Your task to perform on an android device: choose inbox layout in the gmail app Image 0: 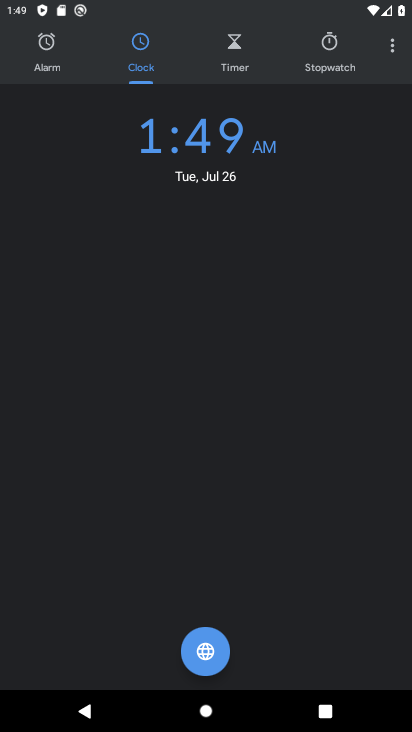
Step 0: press home button
Your task to perform on an android device: choose inbox layout in the gmail app Image 1: 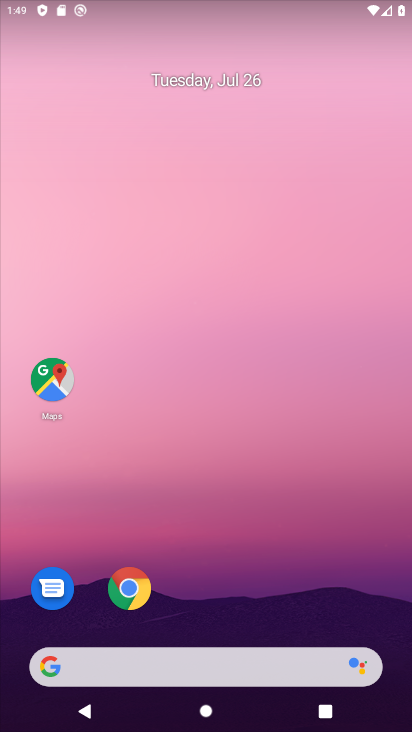
Step 1: drag from (242, 616) to (175, 32)
Your task to perform on an android device: choose inbox layout in the gmail app Image 2: 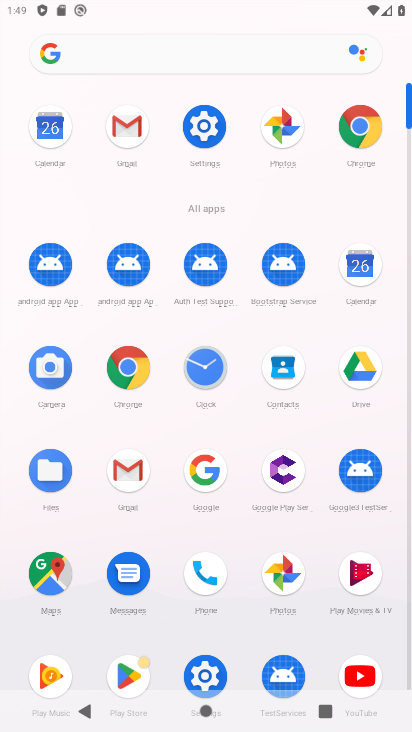
Step 2: click (133, 133)
Your task to perform on an android device: choose inbox layout in the gmail app Image 3: 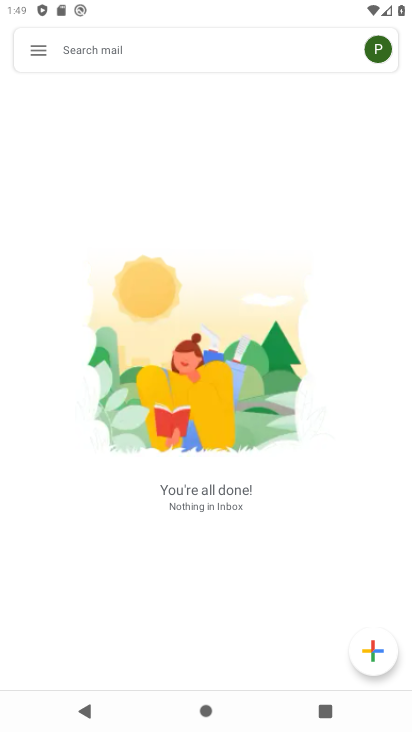
Step 3: click (42, 46)
Your task to perform on an android device: choose inbox layout in the gmail app Image 4: 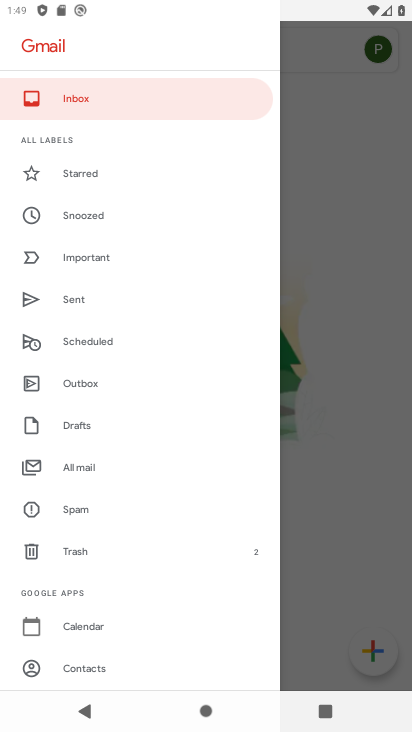
Step 4: drag from (137, 645) to (102, 302)
Your task to perform on an android device: choose inbox layout in the gmail app Image 5: 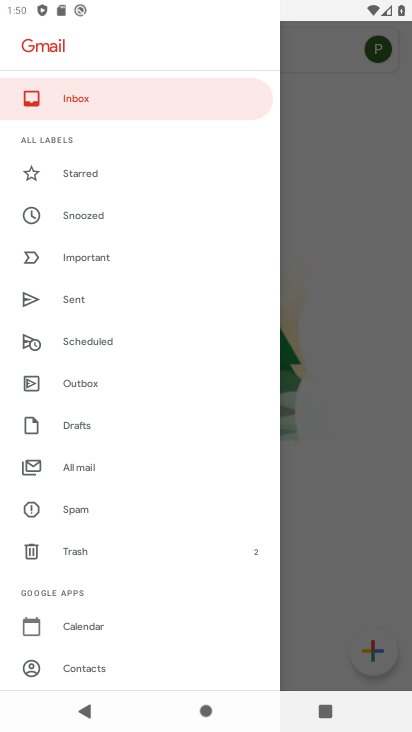
Step 5: drag from (102, 648) to (79, 321)
Your task to perform on an android device: choose inbox layout in the gmail app Image 6: 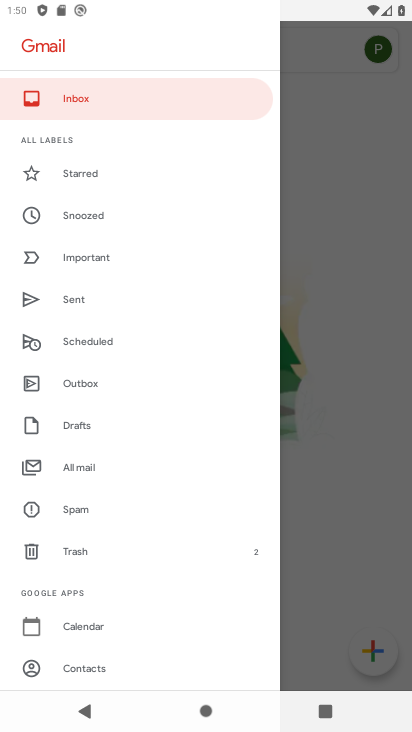
Step 6: drag from (75, 593) to (72, 149)
Your task to perform on an android device: choose inbox layout in the gmail app Image 7: 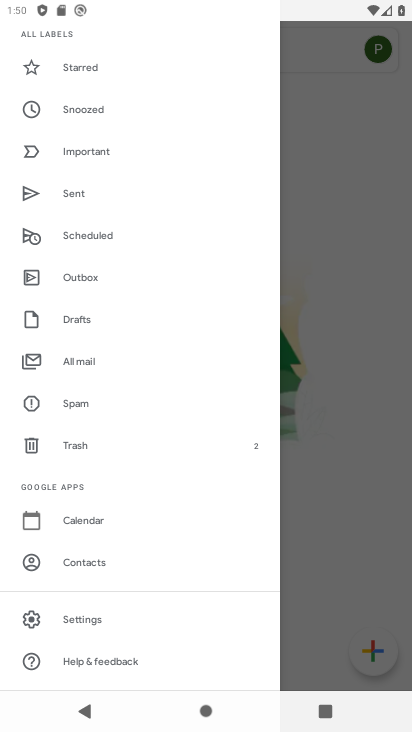
Step 7: click (87, 607)
Your task to perform on an android device: choose inbox layout in the gmail app Image 8: 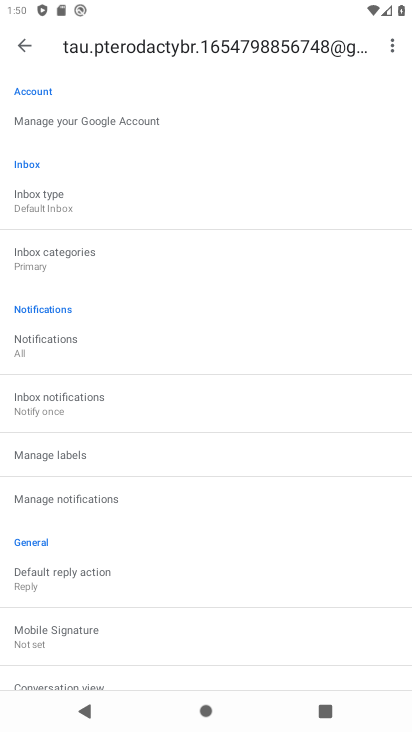
Step 8: click (53, 207)
Your task to perform on an android device: choose inbox layout in the gmail app Image 9: 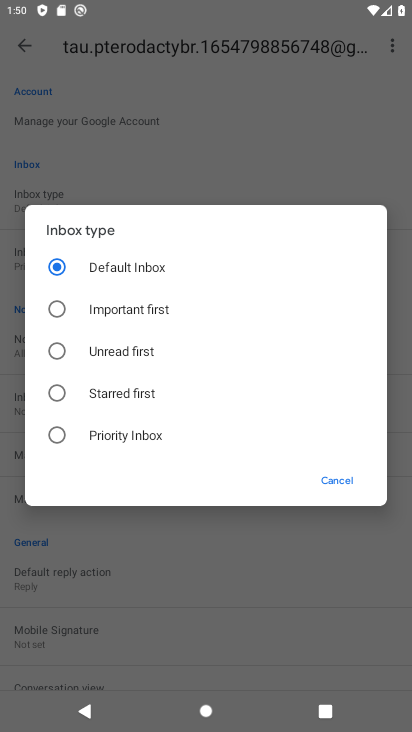
Step 9: click (126, 312)
Your task to perform on an android device: choose inbox layout in the gmail app Image 10: 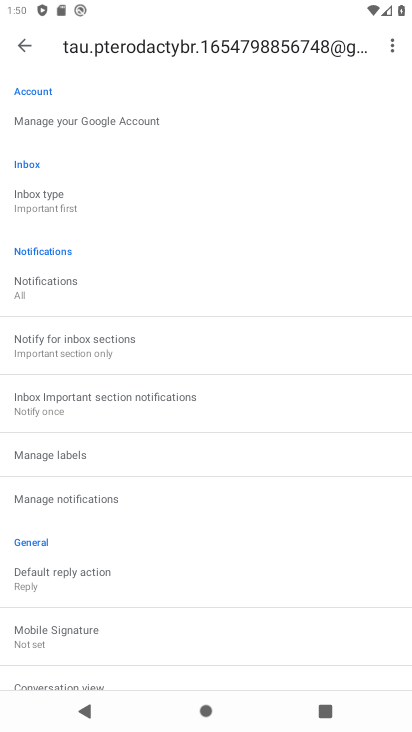
Step 10: task complete